Your task to perform on an android device: Go to display settings Image 0: 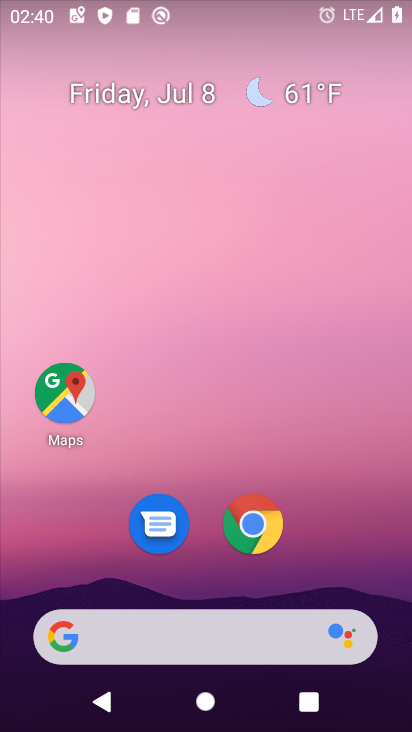
Step 0: drag from (317, 543) to (273, 17)
Your task to perform on an android device: Go to display settings Image 1: 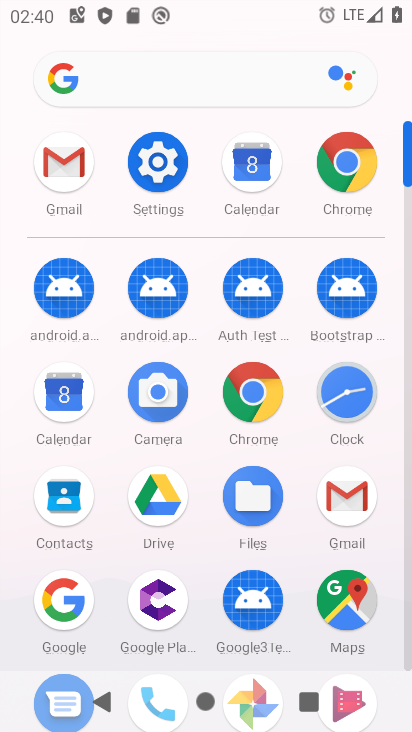
Step 1: click (160, 153)
Your task to perform on an android device: Go to display settings Image 2: 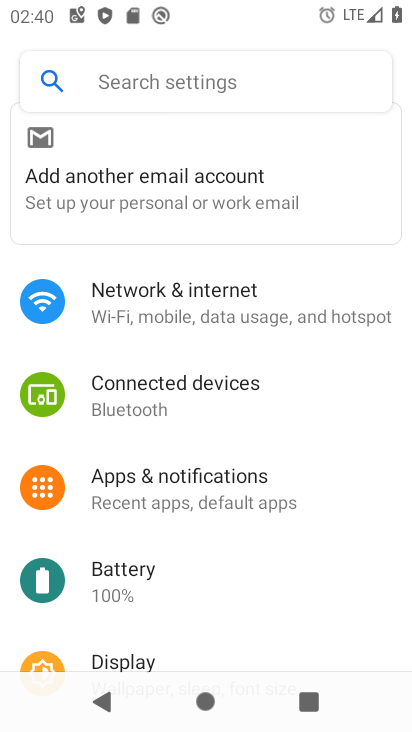
Step 2: drag from (191, 561) to (194, 338)
Your task to perform on an android device: Go to display settings Image 3: 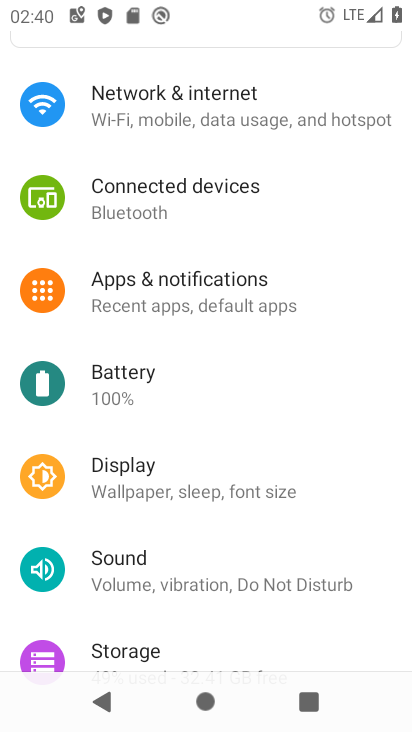
Step 3: click (188, 479)
Your task to perform on an android device: Go to display settings Image 4: 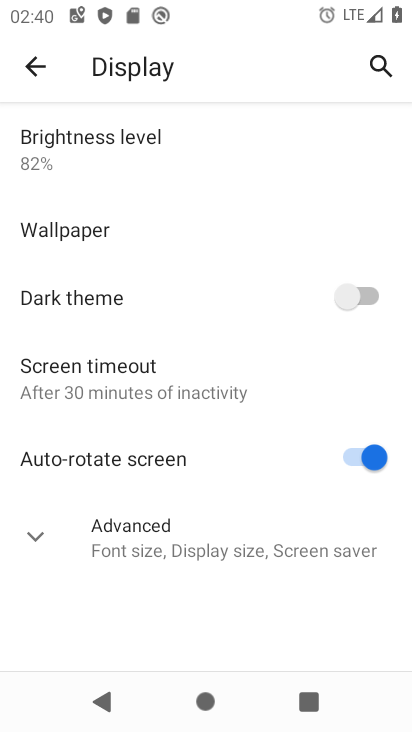
Step 4: task complete